Your task to perform on an android device: turn off improve location accuracy Image 0: 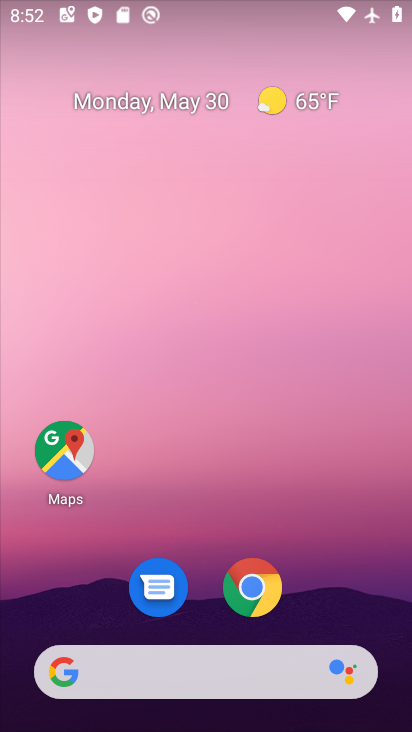
Step 0: press home button
Your task to perform on an android device: turn off improve location accuracy Image 1: 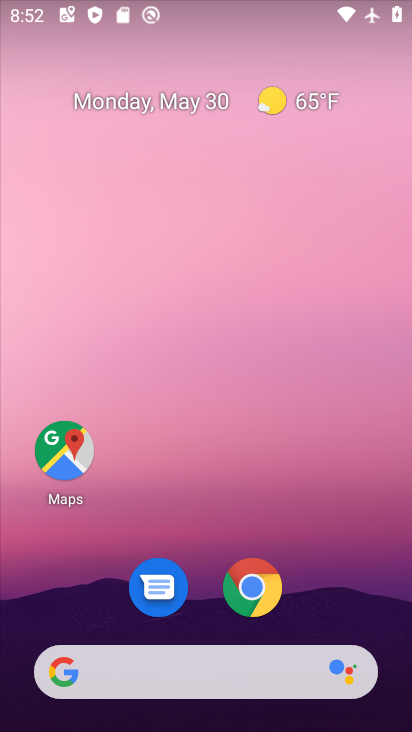
Step 1: drag from (203, 687) to (301, 118)
Your task to perform on an android device: turn off improve location accuracy Image 2: 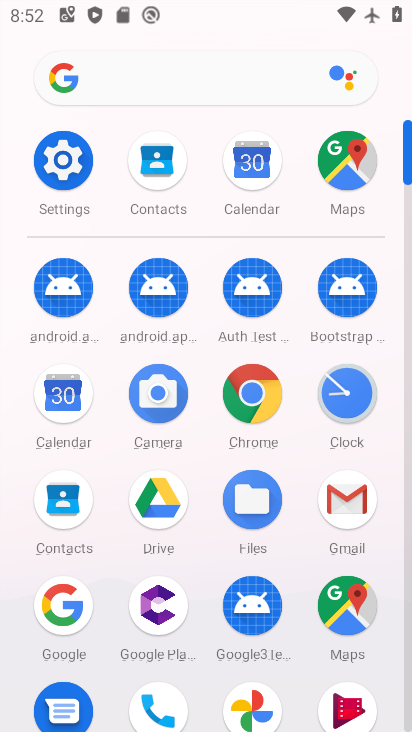
Step 2: click (55, 169)
Your task to perform on an android device: turn off improve location accuracy Image 3: 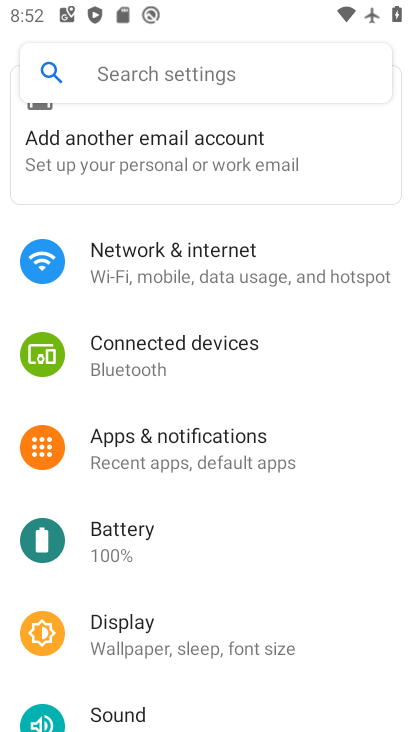
Step 3: drag from (221, 569) to (325, 249)
Your task to perform on an android device: turn off improve location accuracy Image 4: 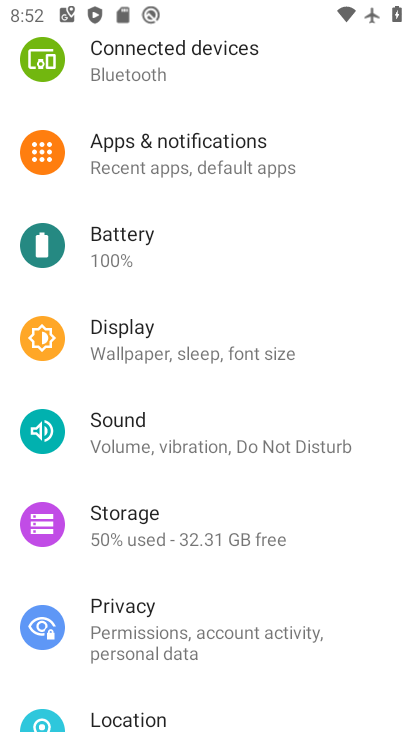
Step 4: drag from (174, 672) to (254, 250)
Your task to perform on an android device: turn off improve location accuracy Image 5: 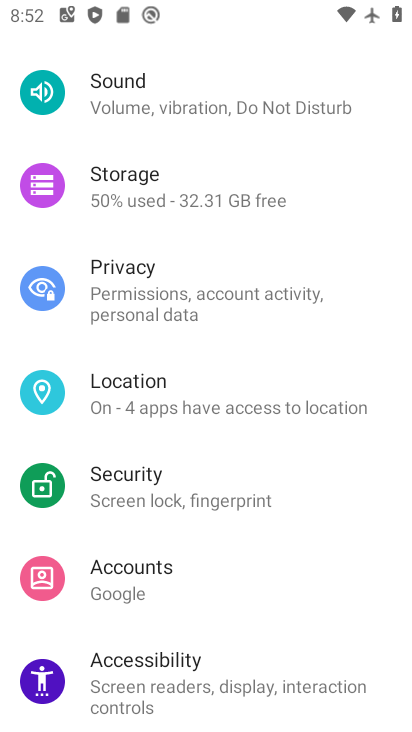
Step 5: click (137, 390)
Your task to perform on an android device: turn off improve location accuracy Image 6: 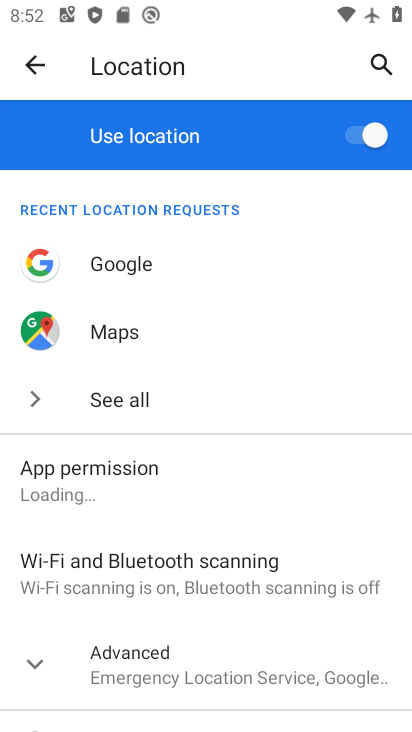
Step 6: click (152, 659)
Your task to perform on an android device: turn off improve location accuracy Image 7: 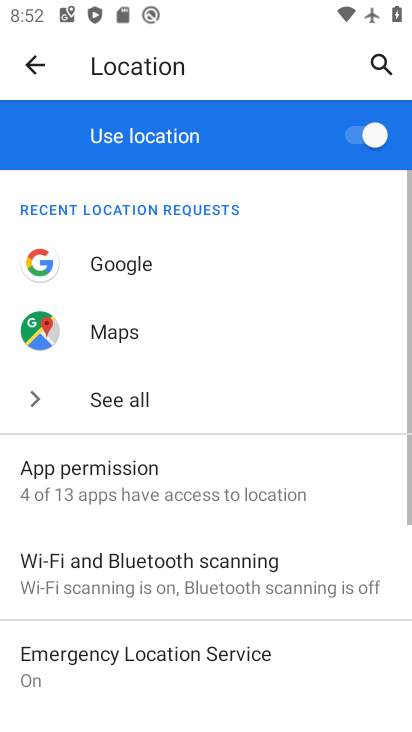
Step 7: drag from (233, 594) to (311, 264)
Your task to perform on an android device: turn off improve location accuracy Image 8: 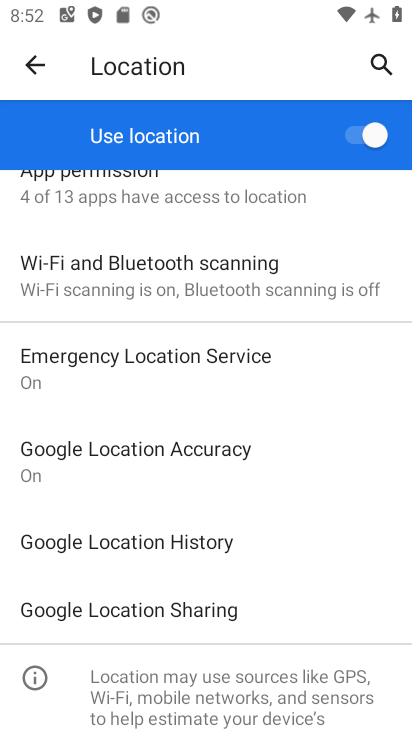
Step 8: click (148, 462)
Your task to perform on an android device: turn off improve location accuracy Image 9: 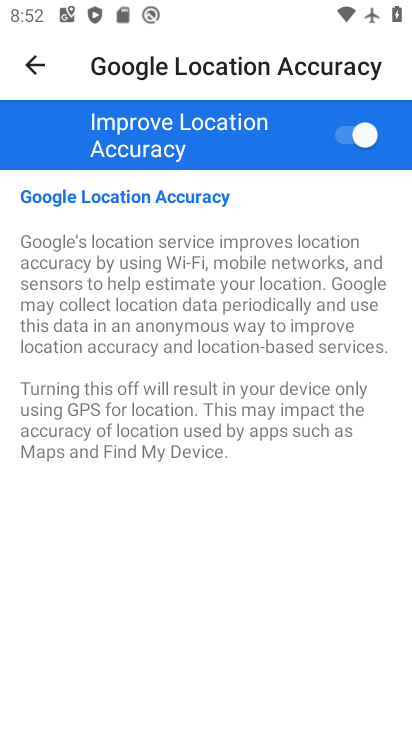
Step 9: click (345, 136)
Your task to perform on an android device: turn off improve location accuracy Image 10: 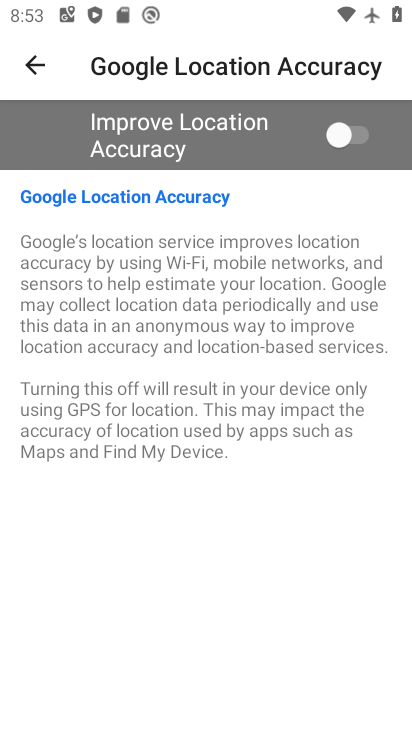
Step 10: task complete